Your task to perform on an android device: delete browsing data in the chrome app Image 0: 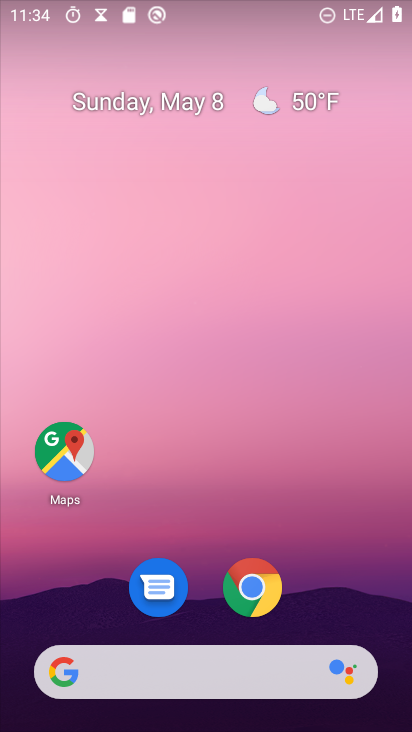
Step 0: click (254, 594)
Your task to perform on an android device: delete browsing data in the chrome app Image 1: 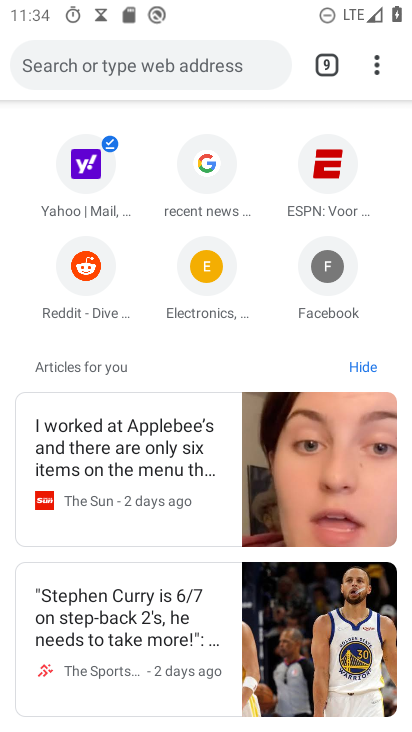
Step 1: drag from (375, 66) to (146, 378)
Your task to perform on an android device: delete browsing data in the chrome app Image 2: 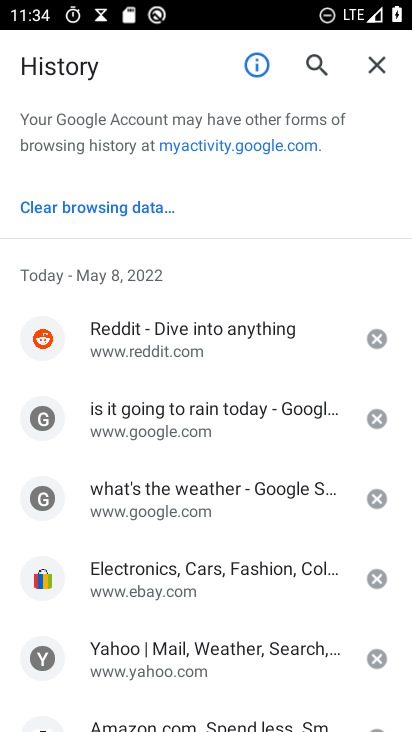
Step 2: click (106, 204)
Your task to perform on an android device: delete browsing data in the chrome app Image 3: 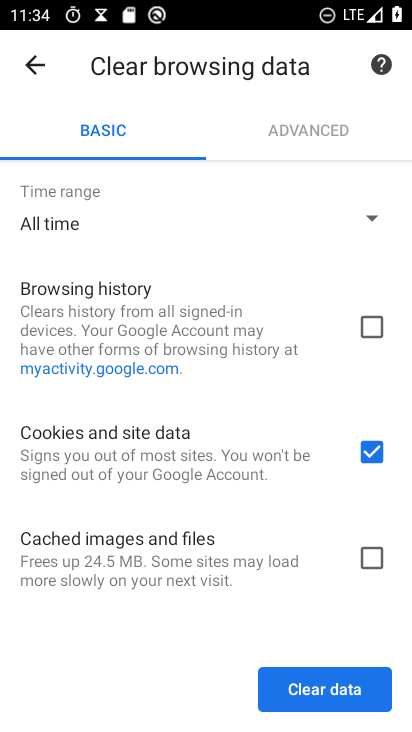
Step 3: click (375, 328)
Your task to perform on an android device: delete browsing data in the chrome app Image 4: 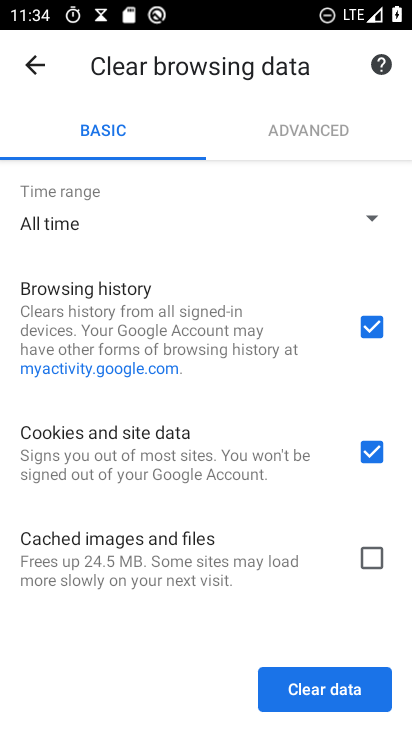
Step 4: click (370, 562)
Your task to perform on an android device: delete browsing data in the chrome app Image 5: 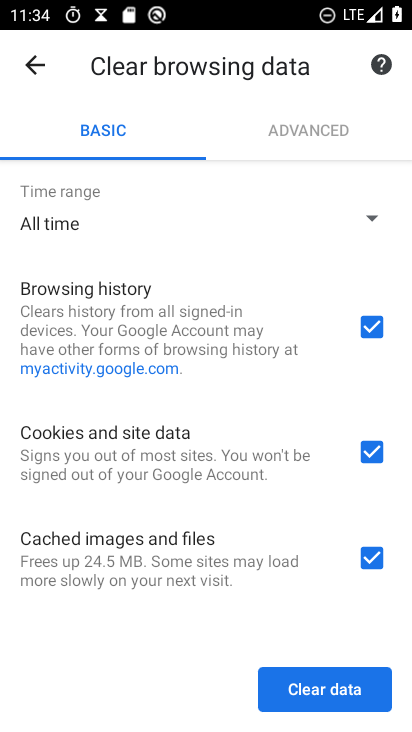
Step 5: click (333, 696)
Your task to perform on an android device: delete browsing data in the chrome app Image 6: 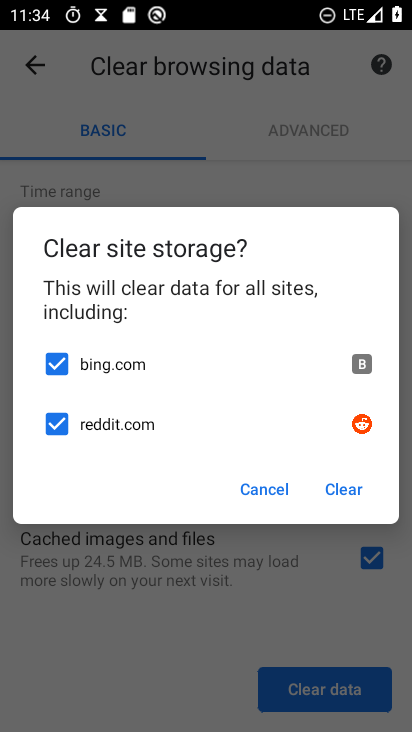
Step 6: click (346, 489)
Your task to perform on an android device: delete browsing data in the chrome app Image 7: 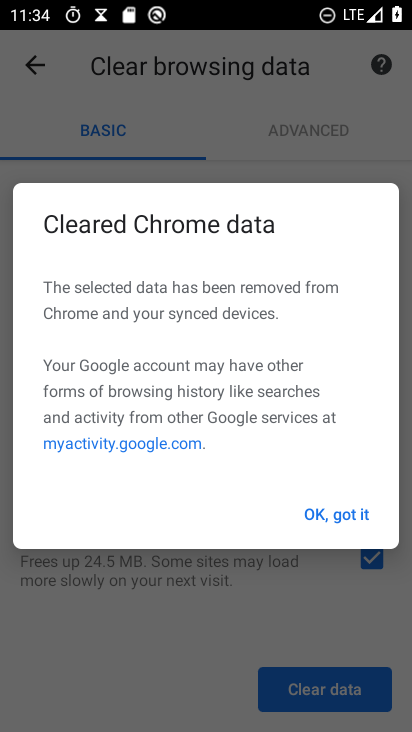
Step 7: click (337, 518)
Your task to perform on an android device: delete browsing data in the chrome app Image 8: 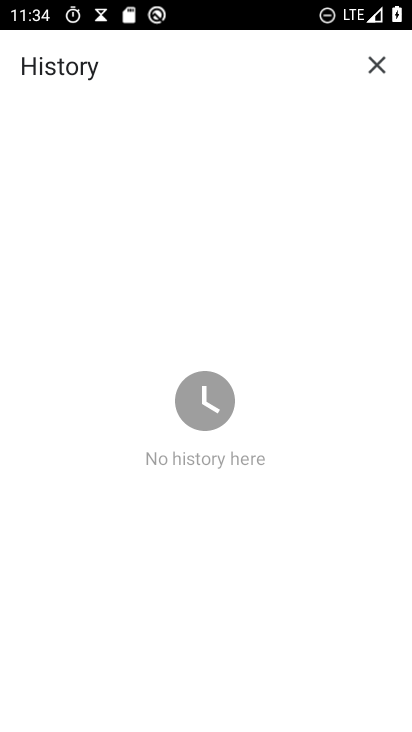
Step 8: task complete